Your task to perform on an android device: change the upload size in google photos Image 0: 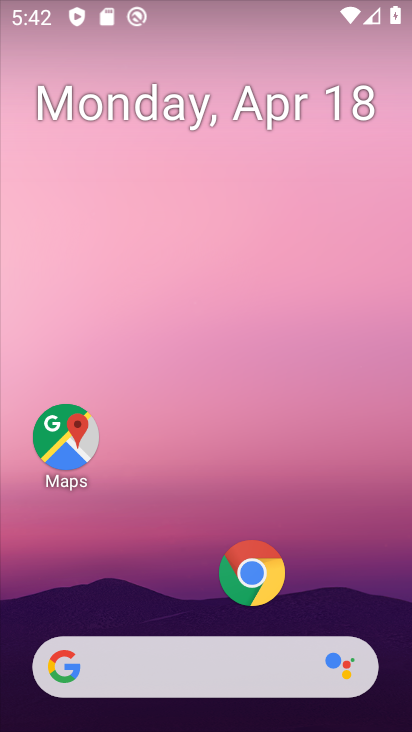
Step 0: drag from (173, 590) to (375, 1)
Your task to perform on an android device: change the upload size in google photos Image 1: 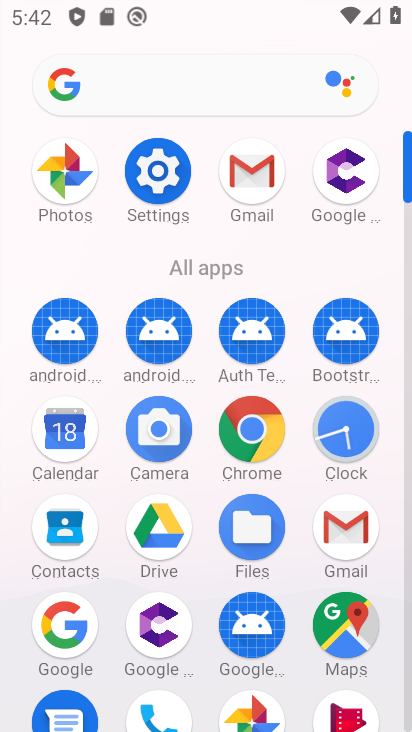
Step 1: click (237, 707)
Your task to perform on an android device: change the upload size in google photos Image 2: 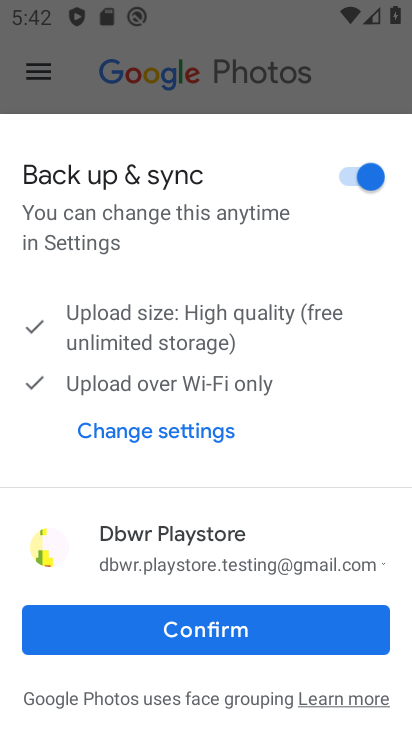
Step 2: click (201, 625)
Your task to perform on an android device: change the upload size in google photos Image 3: 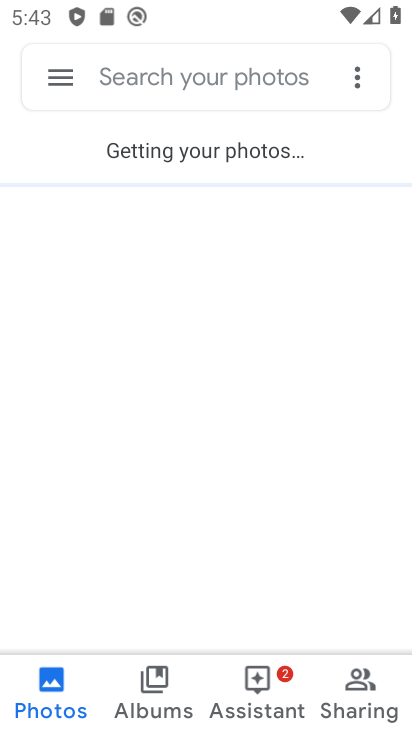
Step 3: click (65, 80)
Your task to perform on an android device: change the upload size in google photos Image 4: 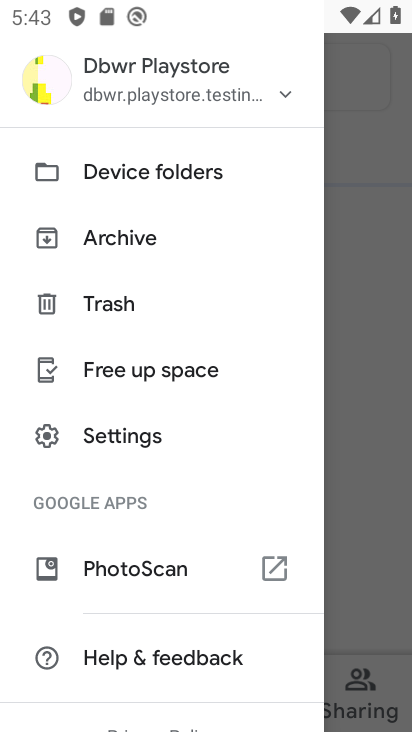
Step 4: click (123, 435)
Your task to perform on an android device: change the upload size in google photos Image 5: 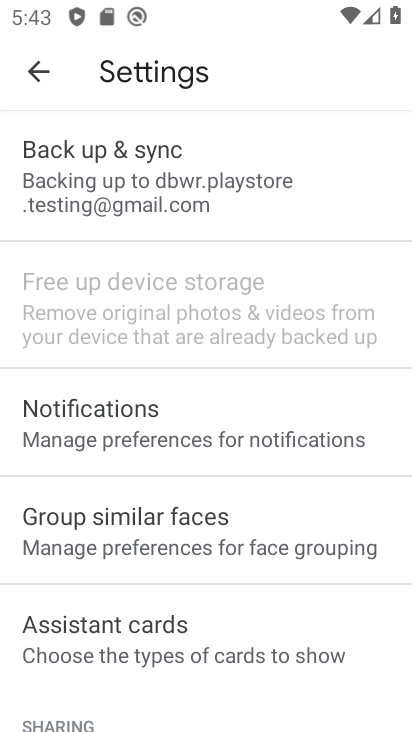
Step 5: click (166, 183)
Your task to perform on an android device: change the upload size in google photos Image 6: 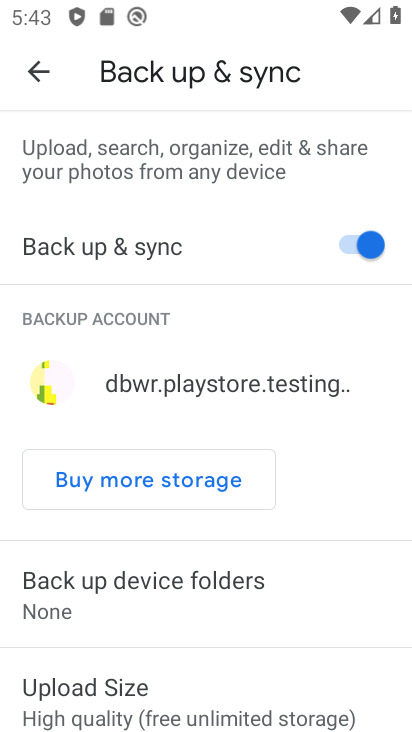
Step 6: click (128, 703)
Your task to perform on an android device: change the upload size in google photos Image 7: 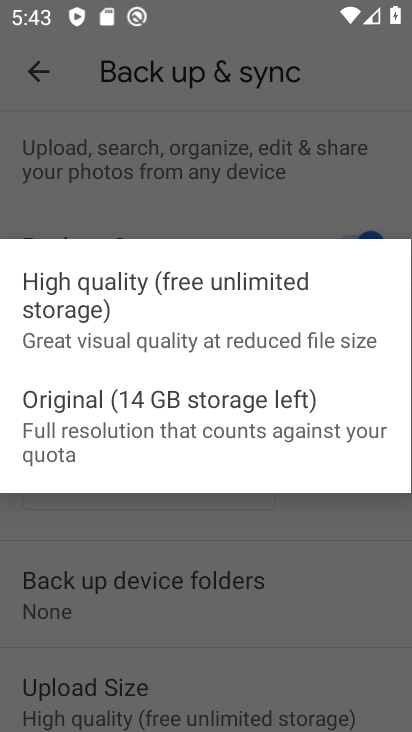
Step 7: click (110, 431)
Your task to perform on an android device: change the upload size in google photos Image 8: 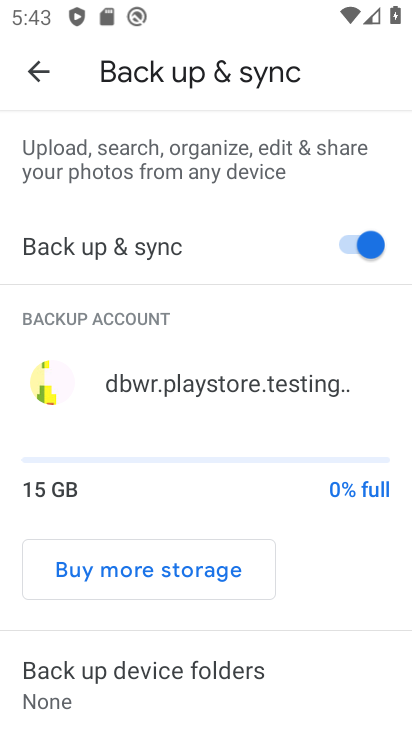
Step 8: task complete